Your task to perform on an android device: Go to battery settings Image 0: 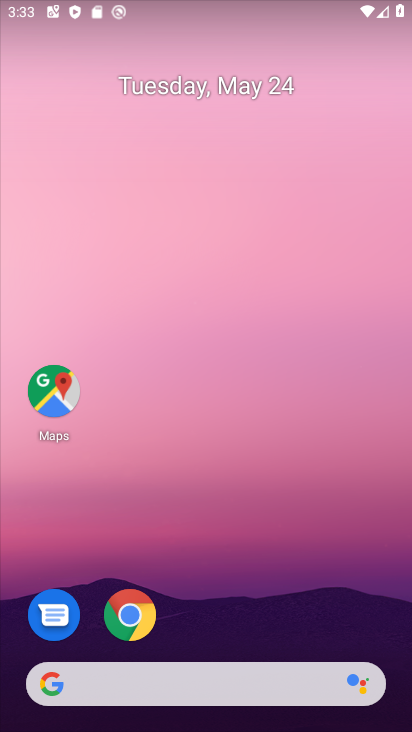
Step 0: drag from (224, 727) to (201, 39)
Your task to perform on an android device: Go to battery settings Image 1: 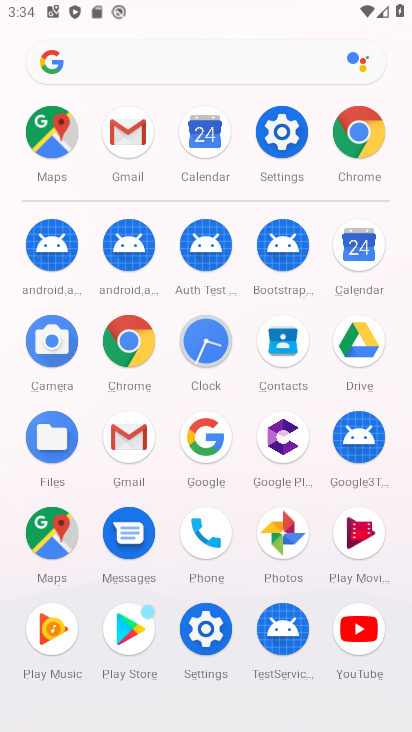
Step 1: click (279, 130)
Your task to perform on an android device: Go to battery settings Image 2: 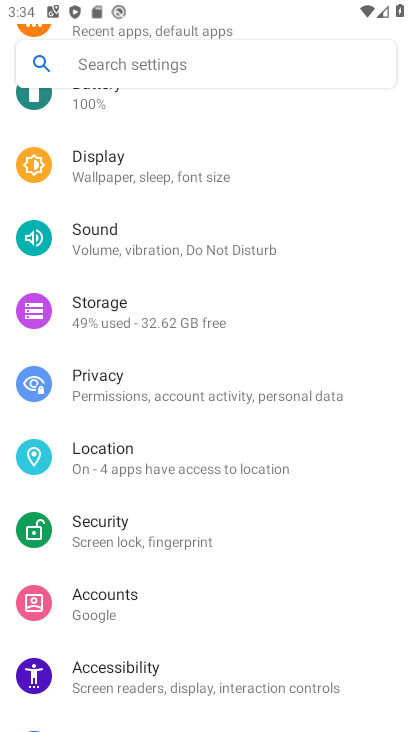
Step 2: drag from (117, 616) to (124, 274)
Your task to perform on an android device: Go to battery settings Image 3: 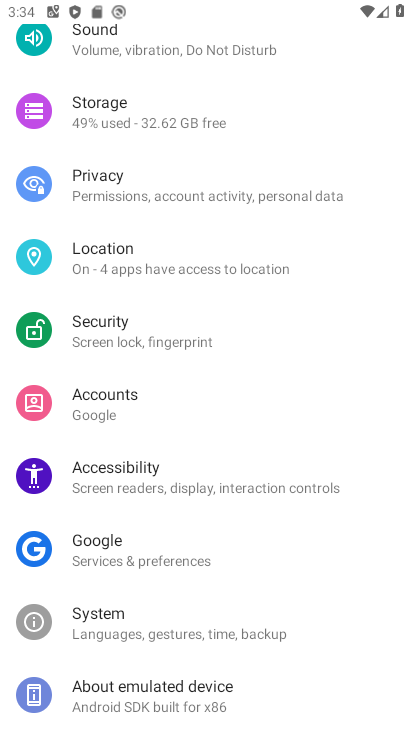
Step 3: drag from (154, 146) to (187, 511)
Your task to perform on an android device: Go to battery settings Image 4: 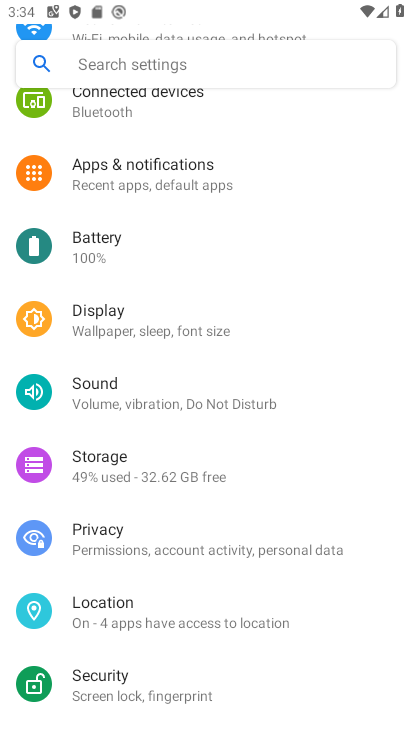
Step 4: click (99, 241)
Your task to perform on an android device: Go to battery settings Image 5: 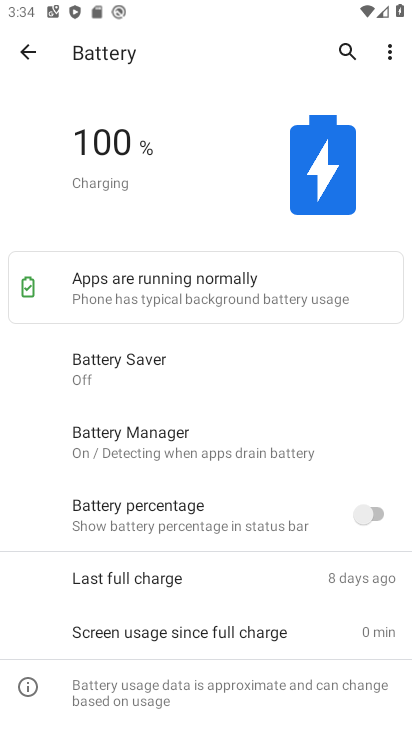
Step 5: task complete